Your task to perform on an android device: Open Reddit.com Image 0: 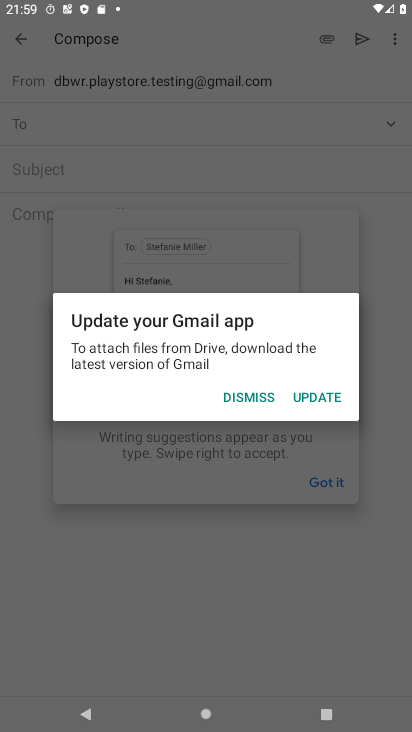
Step 0: press home button
Your task to perform on an android device: Open Reddit.com Image 1: 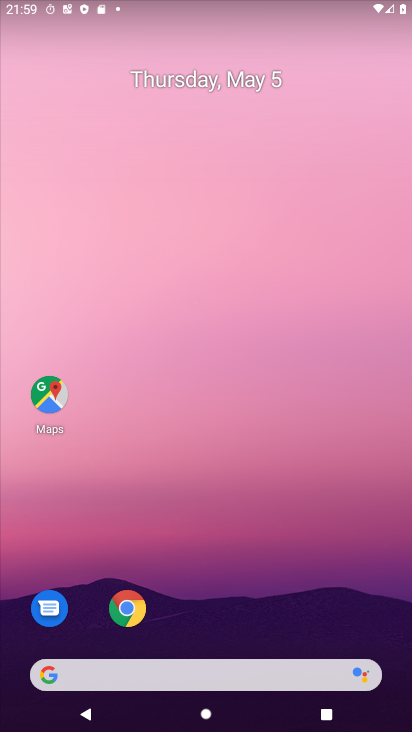
Step 1: drag from (323, 713) to (252, 29)
Your task to perform on an android device: Open Reddit.com Image 2: 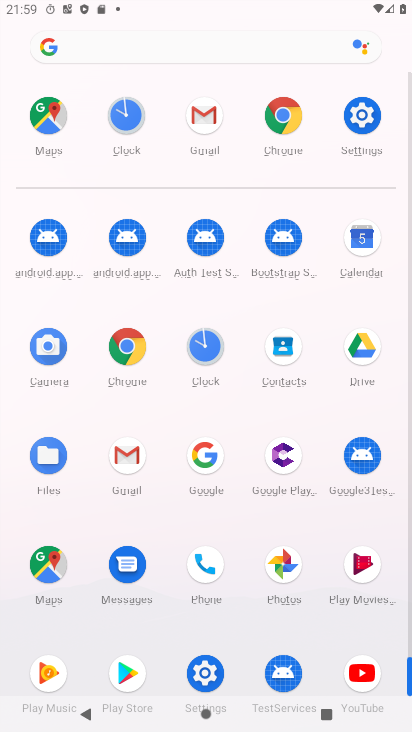
Step 2: click (121, 340)
Your task to perform on an android device: Open Reddit.com Image 3: 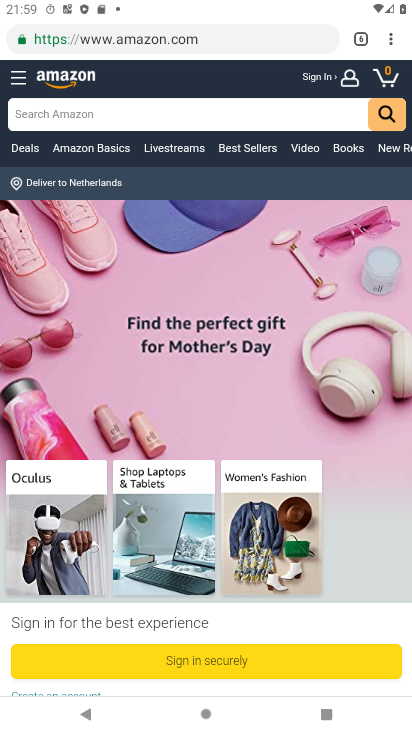
Step 3: click (212, 37)
Your task to perform on an android device: Open Reddit.com Image 4: 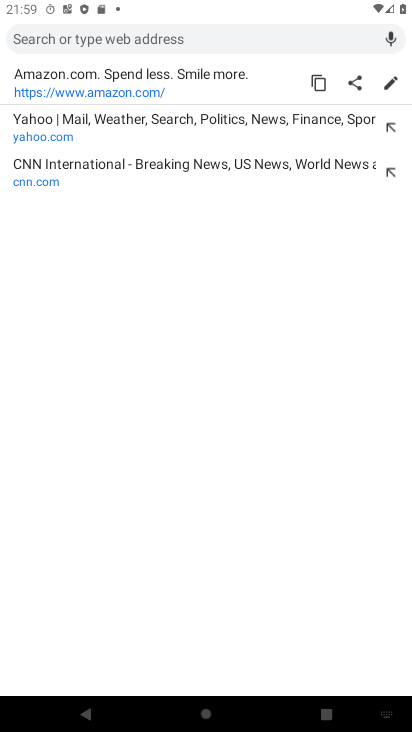
Step 4: type "reddit.com"
Your task to perform on an android device: Open Reddit.com Image 5: 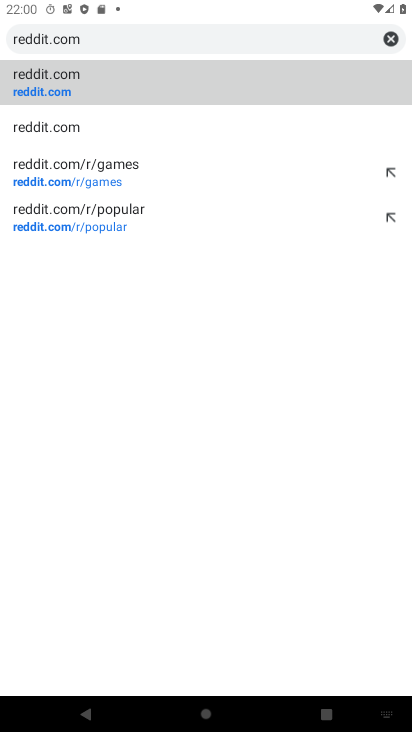
Step 5: click (88, 93)
Your task to perform on an android device: Open Reddit.com Image 6: 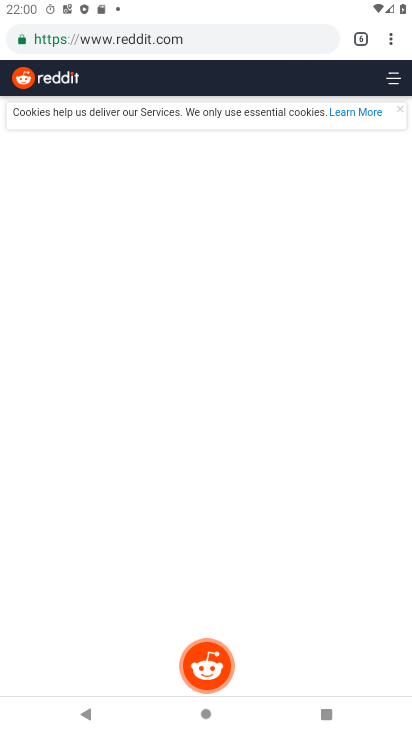
Step 6: task complete